Your task to perform on an android device: see tabs open on other devices in the chrome app Image 0: 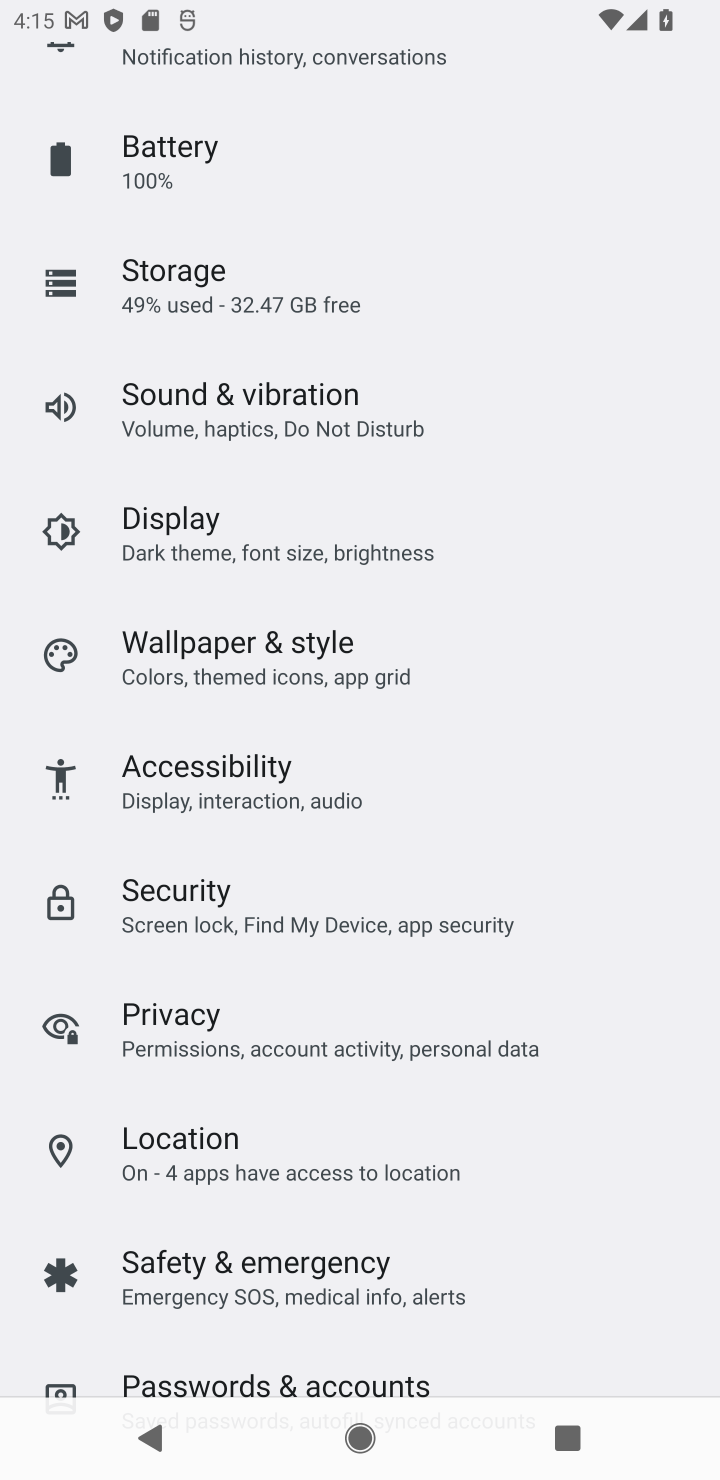
Step 0: press home button
Your task to perform on an android device: see tabs open on other devices in the chrome app Image 1: 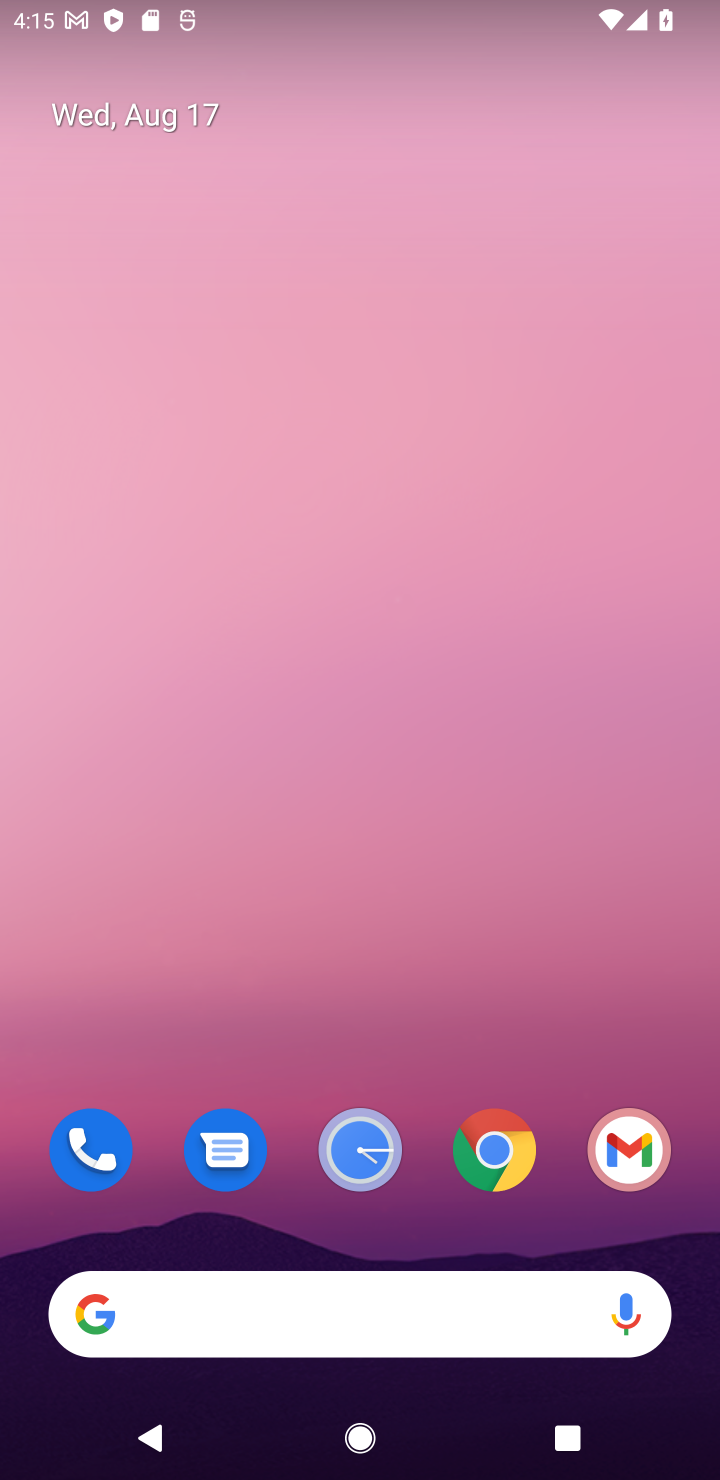
Step 1: drag from (564, 1232) to (576, 5)
Your task to perform on an android device: see tabs open on other devices in the chrome app Image 2: 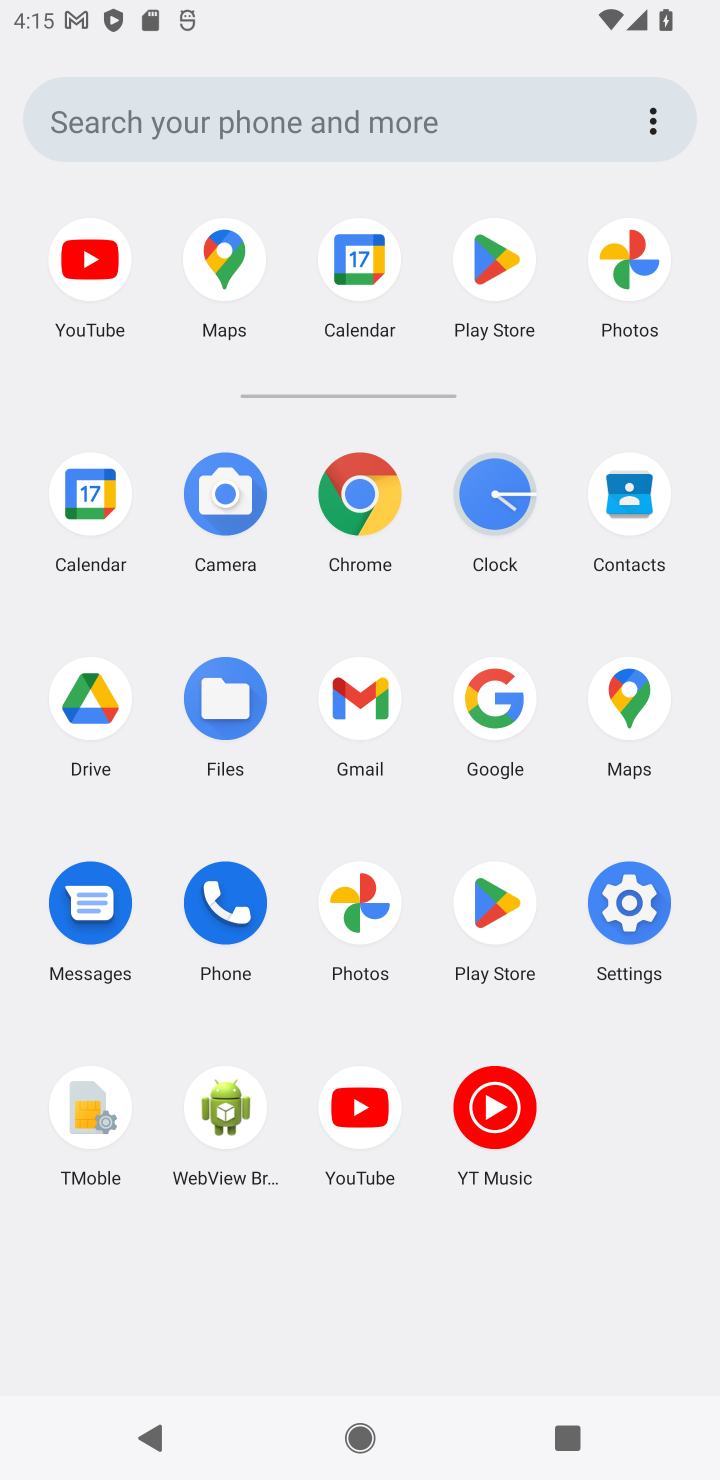
Step 2: click (389, 508)
Your task to perform on an android device: see tabs open on other devices in the chrome app Image 3: 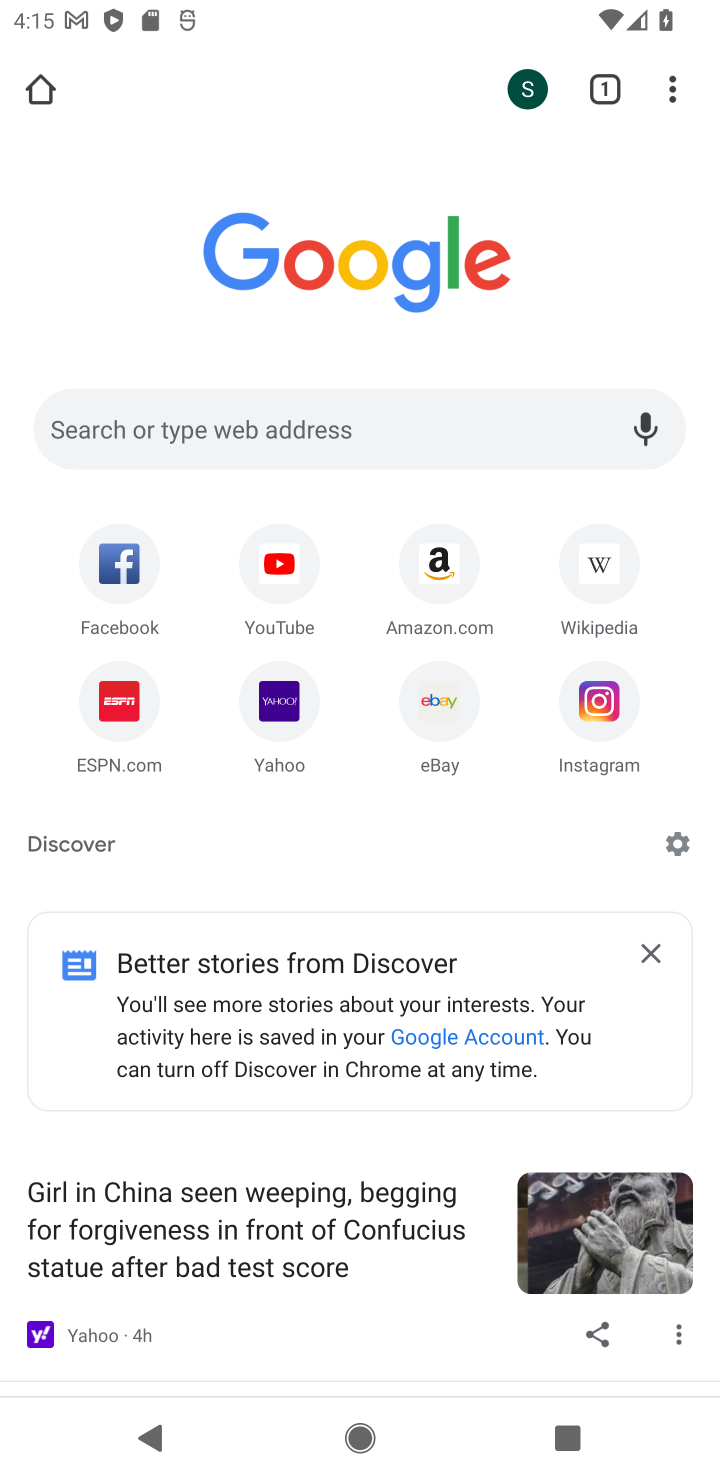
Step 3: task complete